Your task to perform on an android device: turn on location history Image 0: 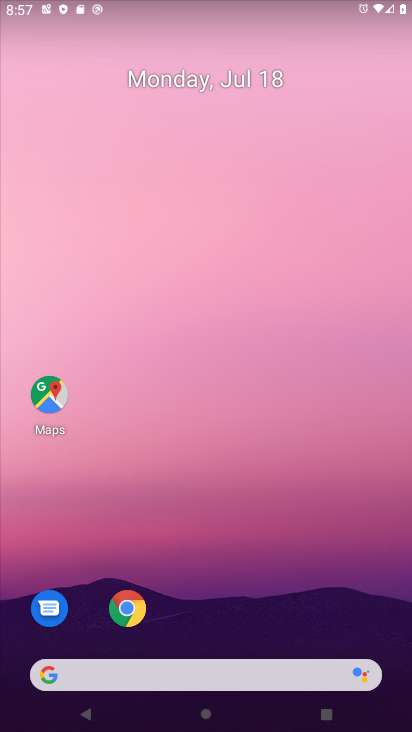
Step 0: drag from (226, 722) to (234, 244)
Your task to perform on an android device: turn on location history Image 1: 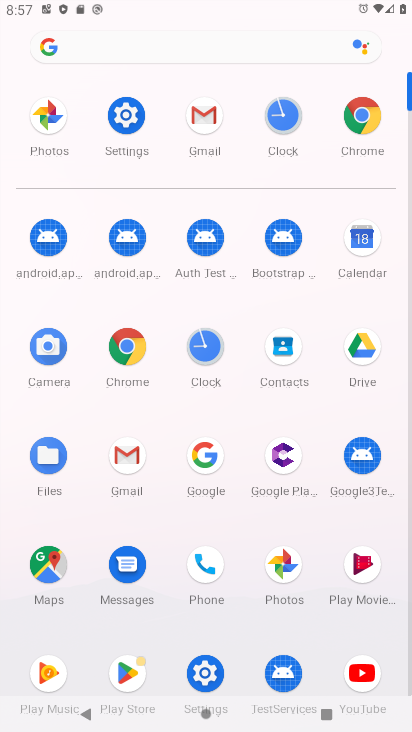
Step 1: click (128, 111)
Your task to perform on an android device: turn on location history Image 2: 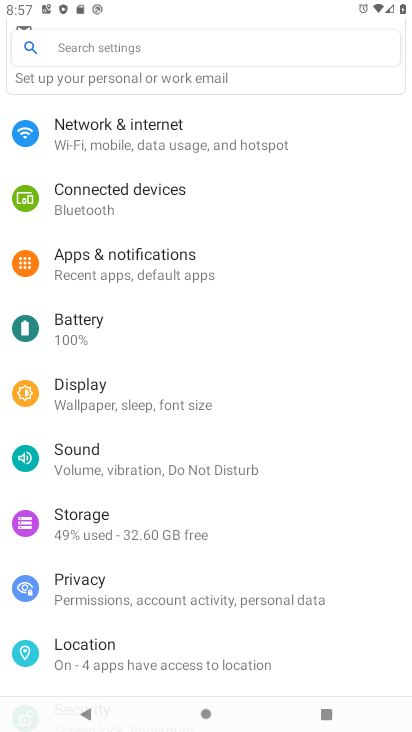
Step 2: click (61, 647)
Your task to perform on an android device: turn on location history Image 3: 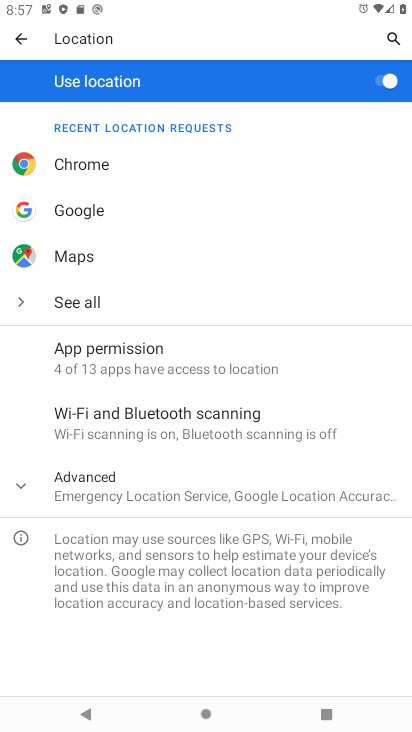
Step 3: click (151, 483)
Your task to perform on an android device: turn on location history Image 4: 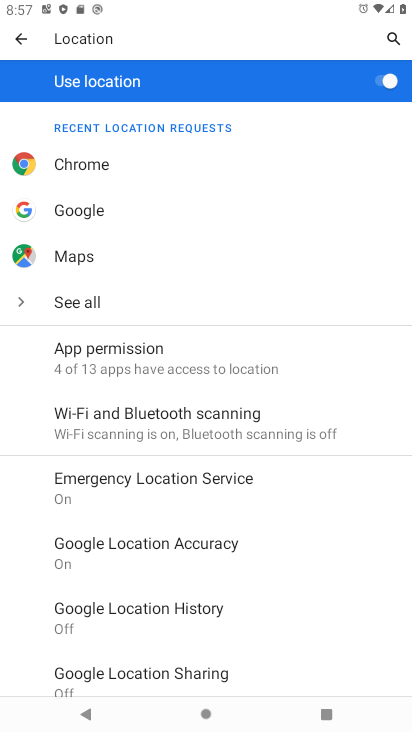
Step 4: click (195, 608)
Your task to perform on an android device: turn on location history Image 5: 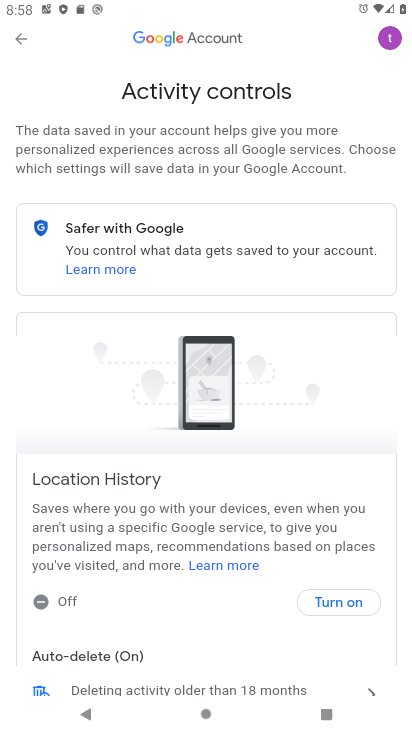
Step 5: click (338, 598)
Your task to perform on an android device: turn on location history Image 6: 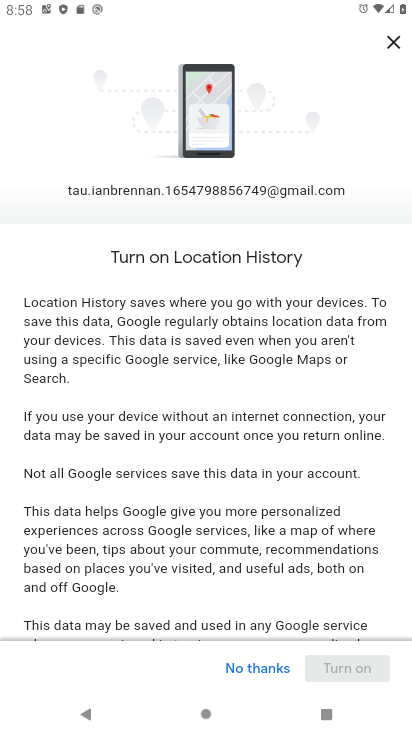
Step 6: drag from (272, 617) to (256, 460)
Your task to perform on an android device: turn on location history Image 7: 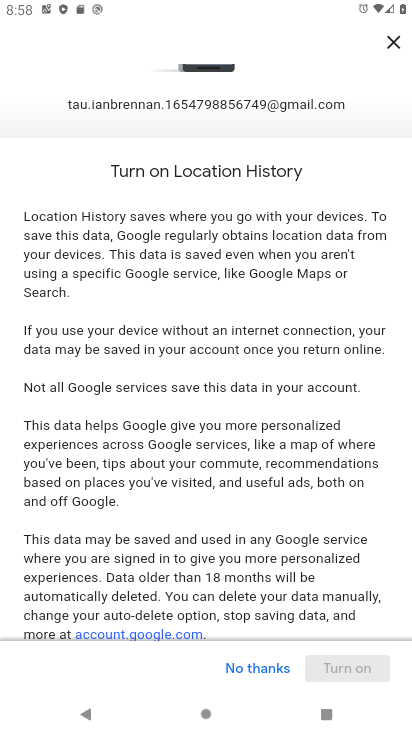
Step 7: click (255, 307)
Your task to perform on an android device: turn on location history Image 8: 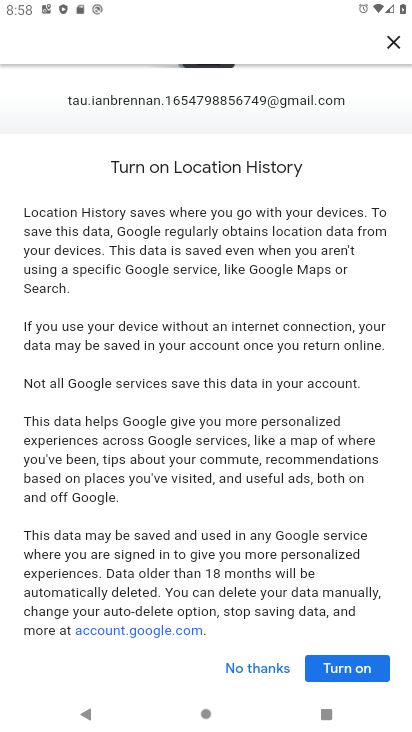
Step 8: click (360, 665)
Your task to perform on an android device: turn on location history Image 9: 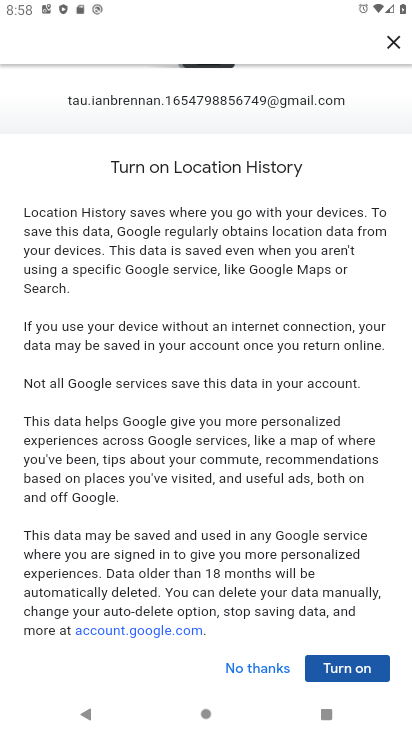
Step 9: click (357, 669)
Your task to perform on an android device: turn on location history Image 10: 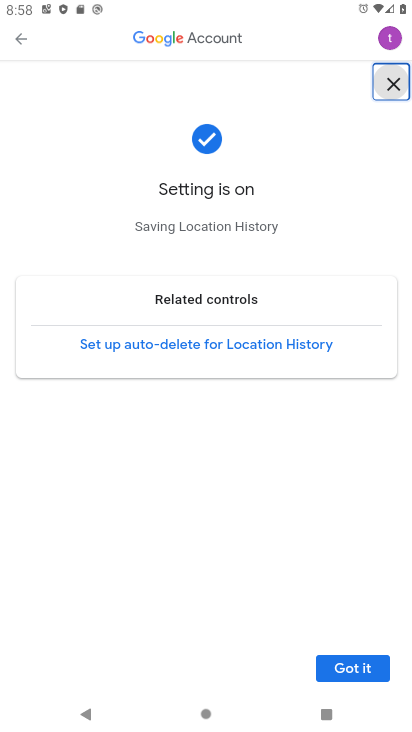
Step 10: click (353, 666)
Your task to perform on an android device: turn on location history Image 11: 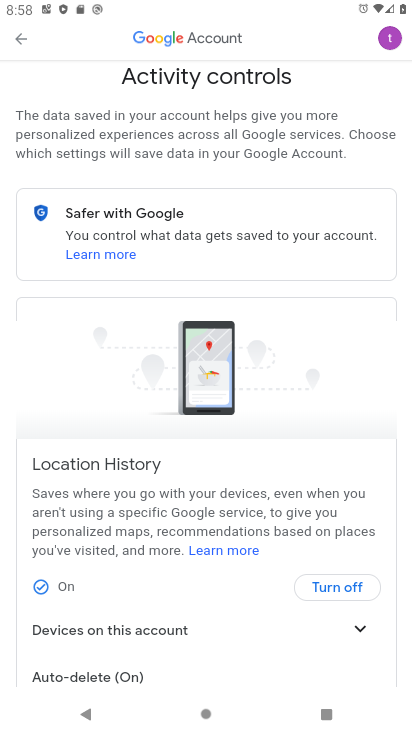
Step 11: task complete